Your task to perform on an android device: choose inbox layout in the gmail app Image 0: 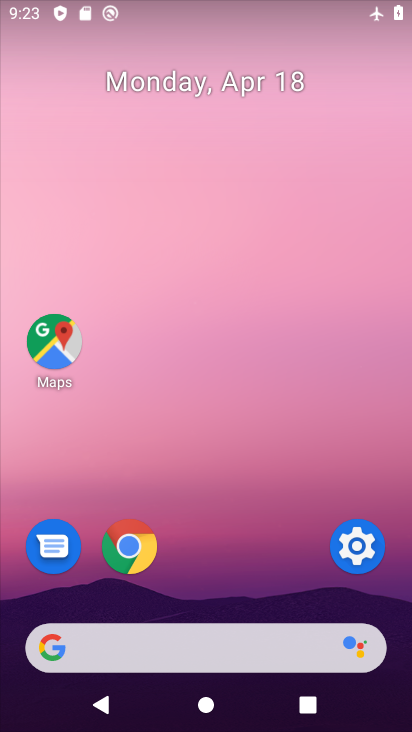
Step 0: drag from (281, 469) to (290, 31)
Your task to perform on an android device: choose inbox layout in the gmail app Image 1: 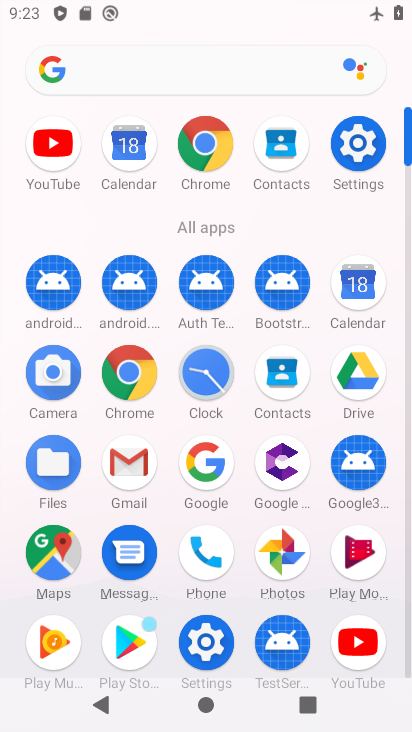
Step 1: click (143, 475)
Your task to perform on an android device: choose inbox layout in the gmail app Image 2: 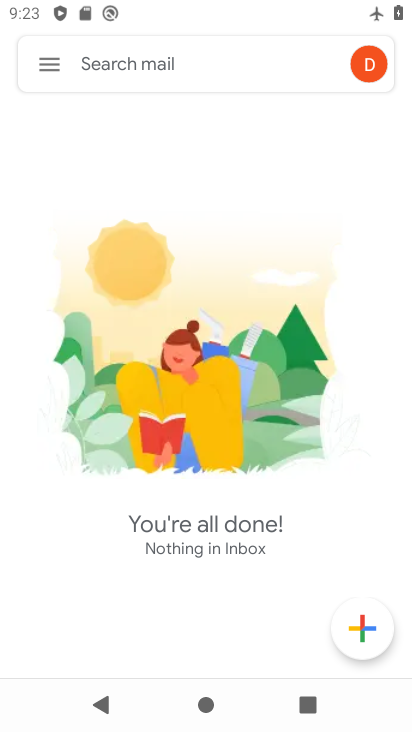
Step 2: click (49, 70)
Your task to perform on an android device: choose inbox layout in the gmail app Image 3: 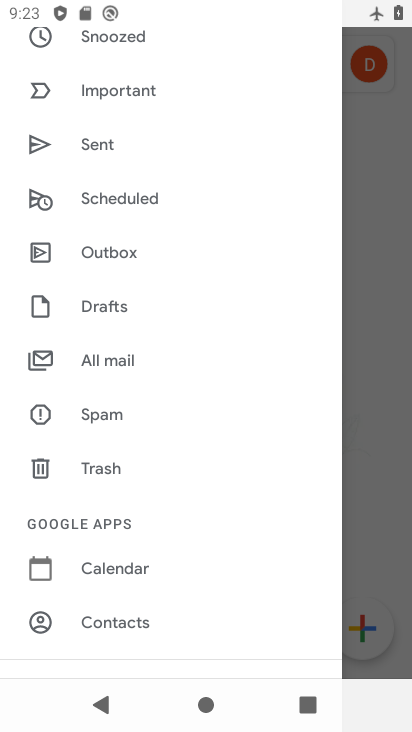
Step 3: drag from (204, 238) to (194, 423)
Your task to perform on an android device: choose inbox layout in the gmail app Image 4: 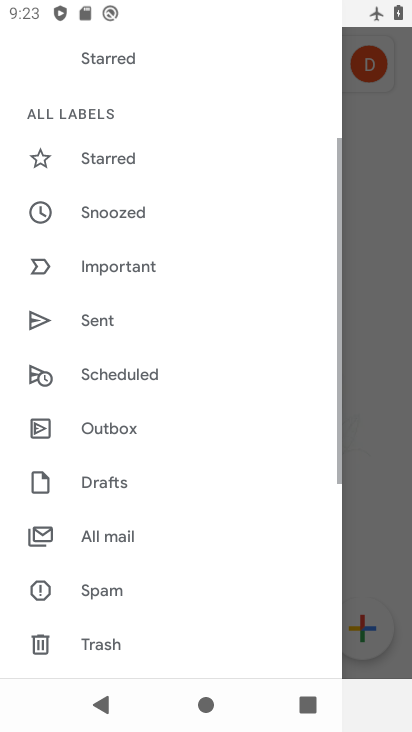
Step 4: drag from (183, 181) to (177, 388)
Your task to perform on an android device: choose inbox layout in the gmail app Image 5: 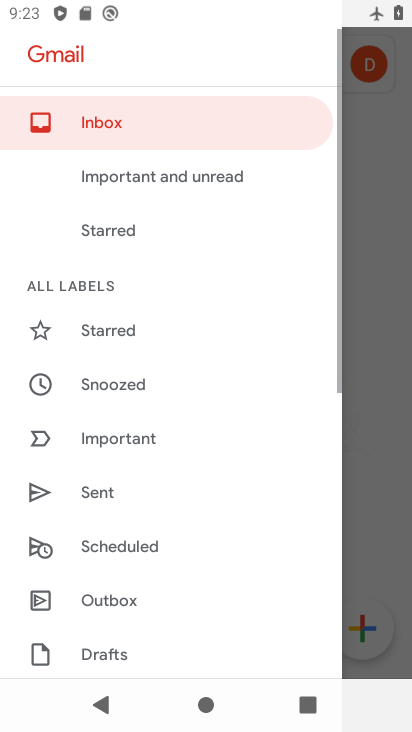
Step 5: click (125, 136)
Your task to perform on an android device: choose inbox layout in the gmail app Image 6: 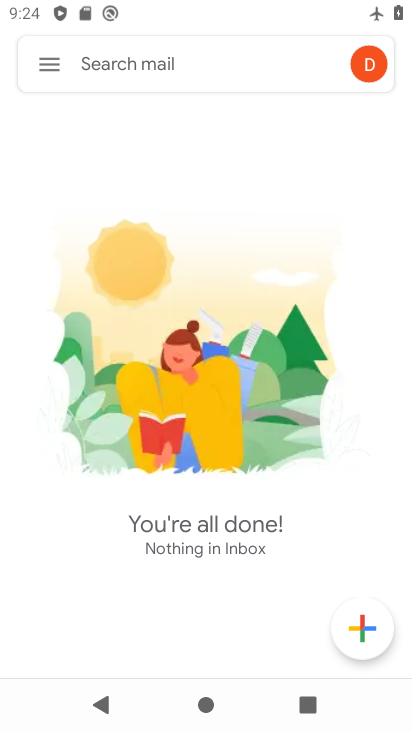
Step 6: task complete